Your task to perform on an android device: show emergency info Image 0: 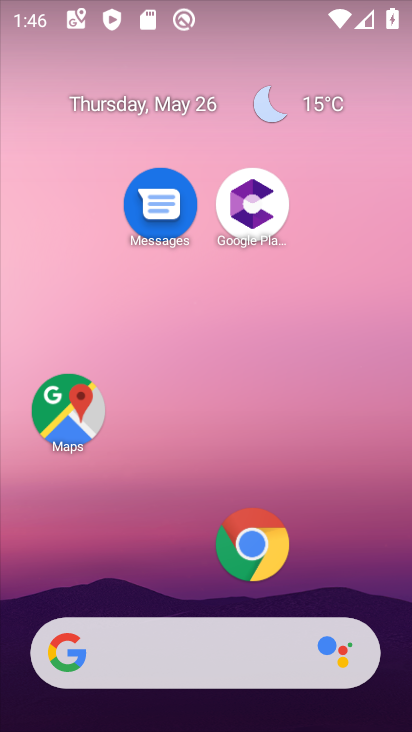
Step 0: drag from (180, 604) to (254, 98)
Your task to perform on an android device: show emergency info Image 1: 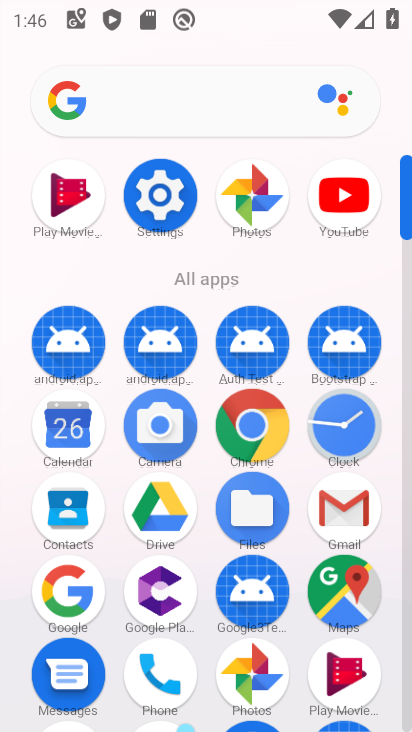
Step 1: click (145, 185)
Your task to perform on an android device: show emergency info Image 2: 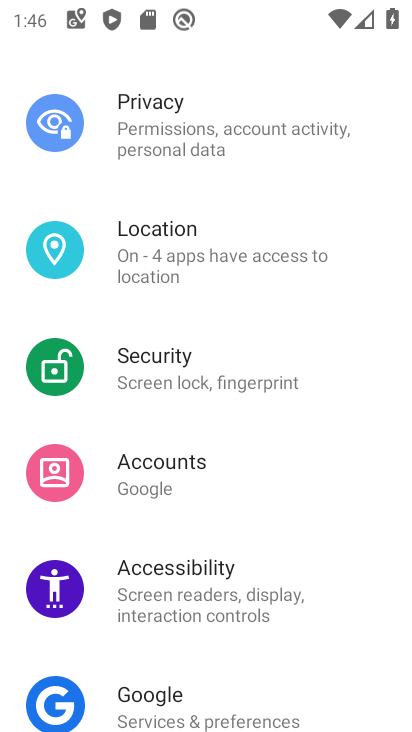
Step 2: drag from (44, 663) to (153, 177)
Your task to perform on an android device: show emergency info Image 3: 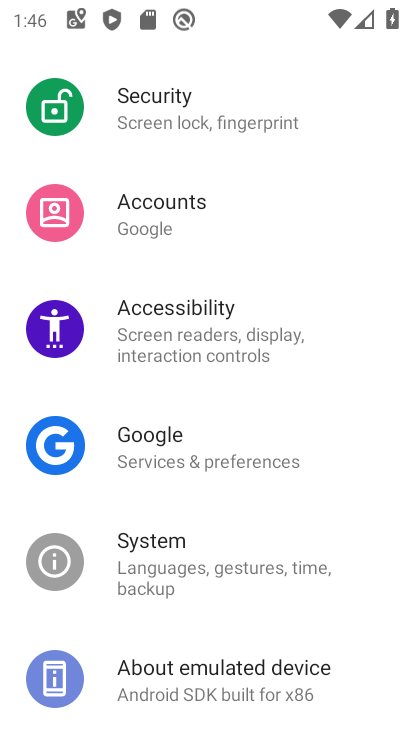
Step 3: drag from (95, 706) to (193, 265)
Your task to perform on an android device: show emergency info Image 4: 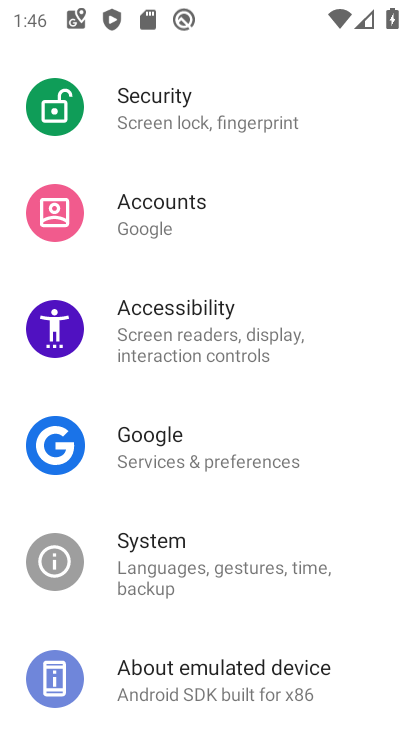
Step 4: click (176, 686)
Your task to perform on an android device: show emergency info Image 5: 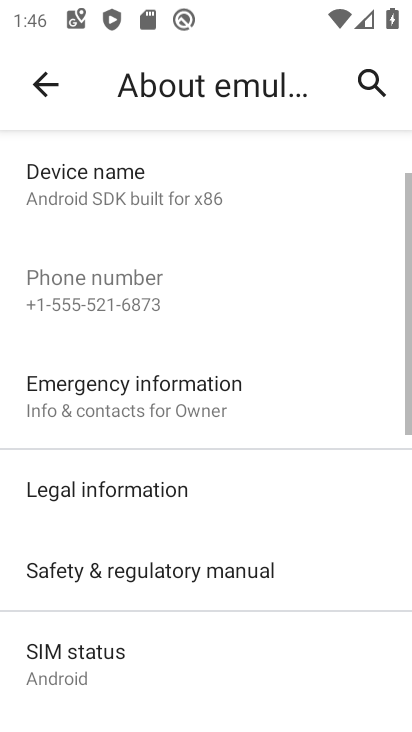
Step 5: click (237, 378)
Your task to perform on an android device: show emergency info Image 6: 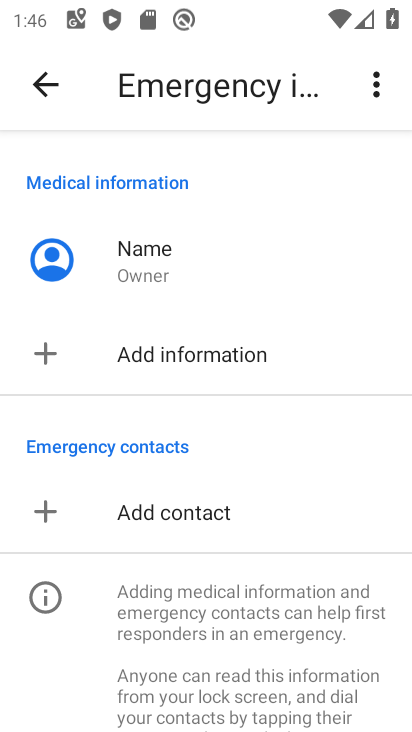
Step 6: task complete